Your task to perform on an android device: Open privacy settings Image 0: 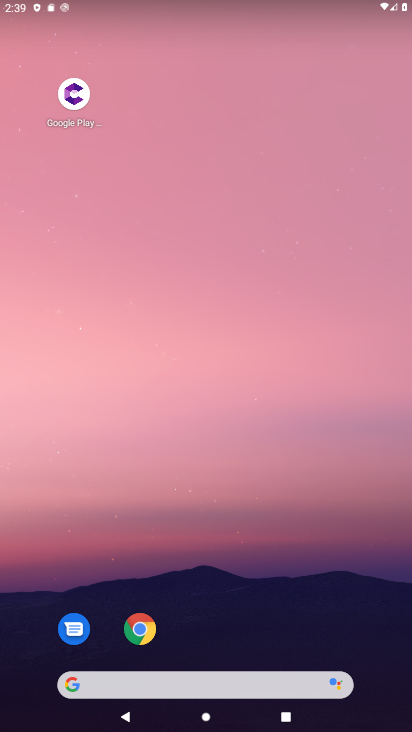
Step 0: drag from (241, 580) to (241, 1)
Your task to perform on an android device: Open privacy settings Image 1: 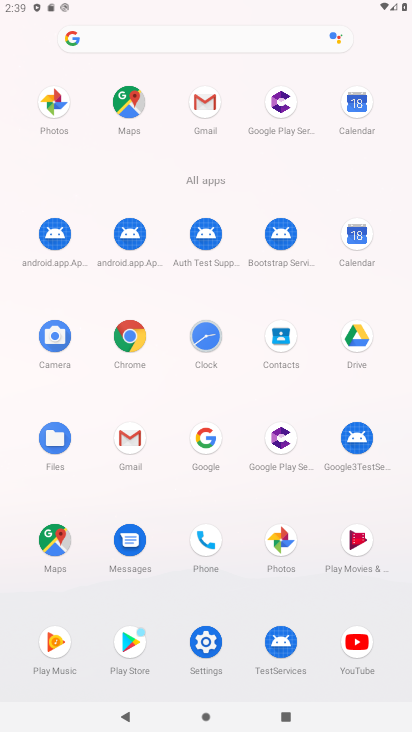
Step 1: click (209, 629)
Your task to perform on an android device: Open privacy settings Image 2: 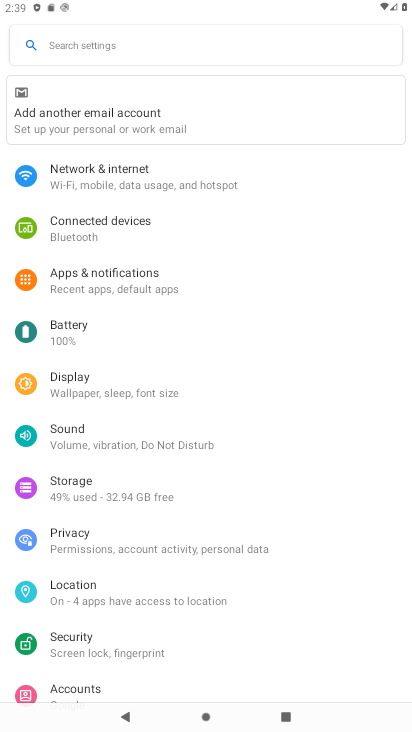
Step 2: click (125, 553)
Your task to perform on an android device: Open privacy settings Image 3: 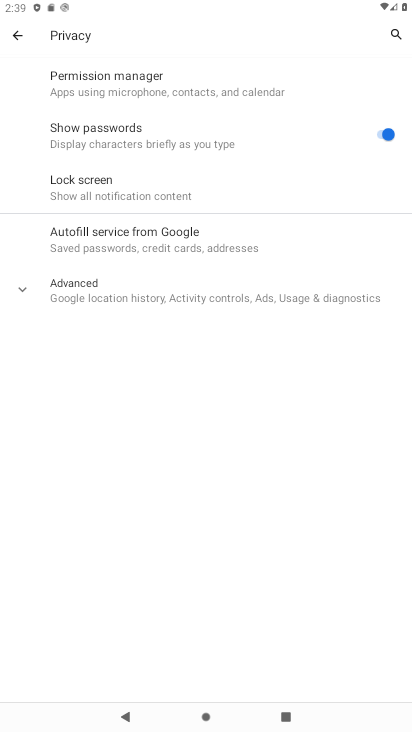
Step 3: task complete